Your task to perform on an android device: What's the news in Bolivia? Image 0: 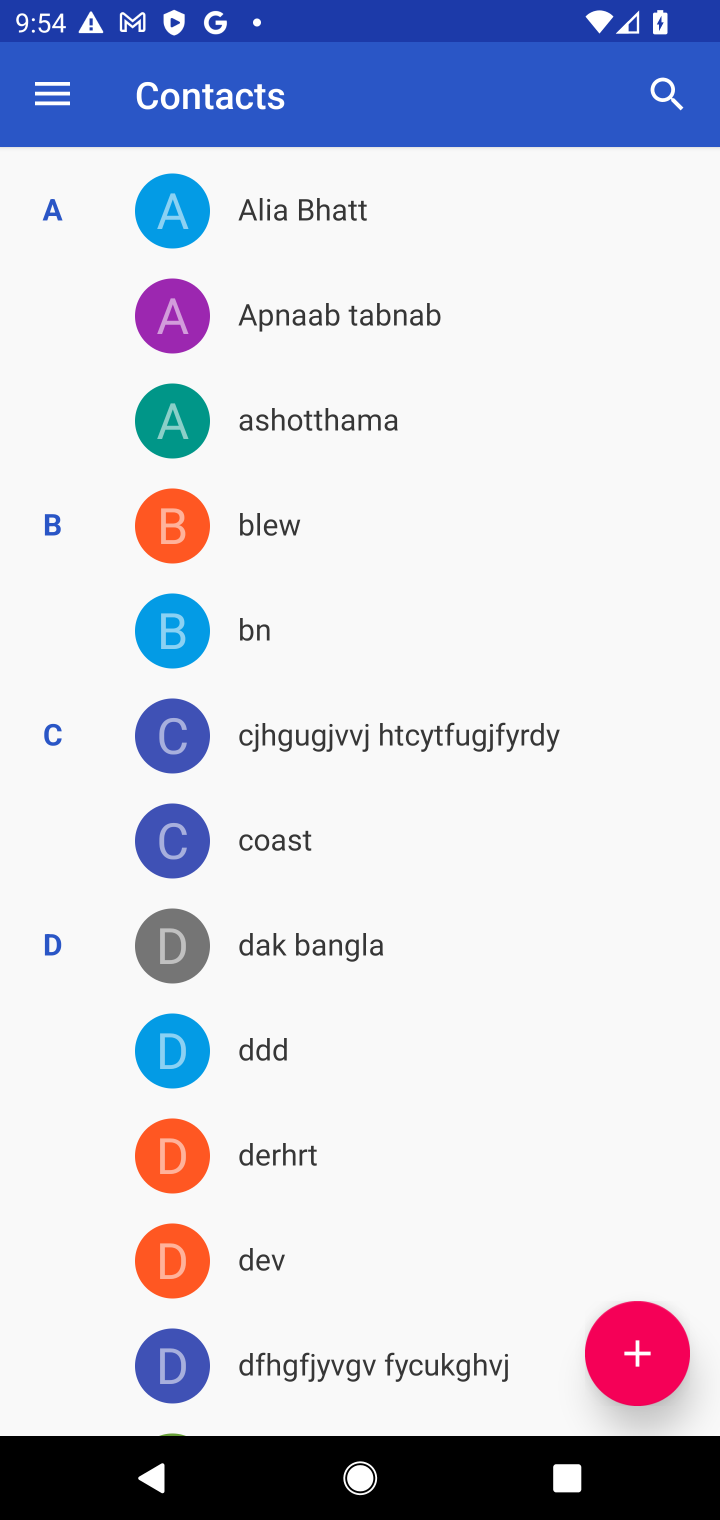
Step 0: press home button
Your task to perform on an android device: What's the news in Bolivia? Image 1: 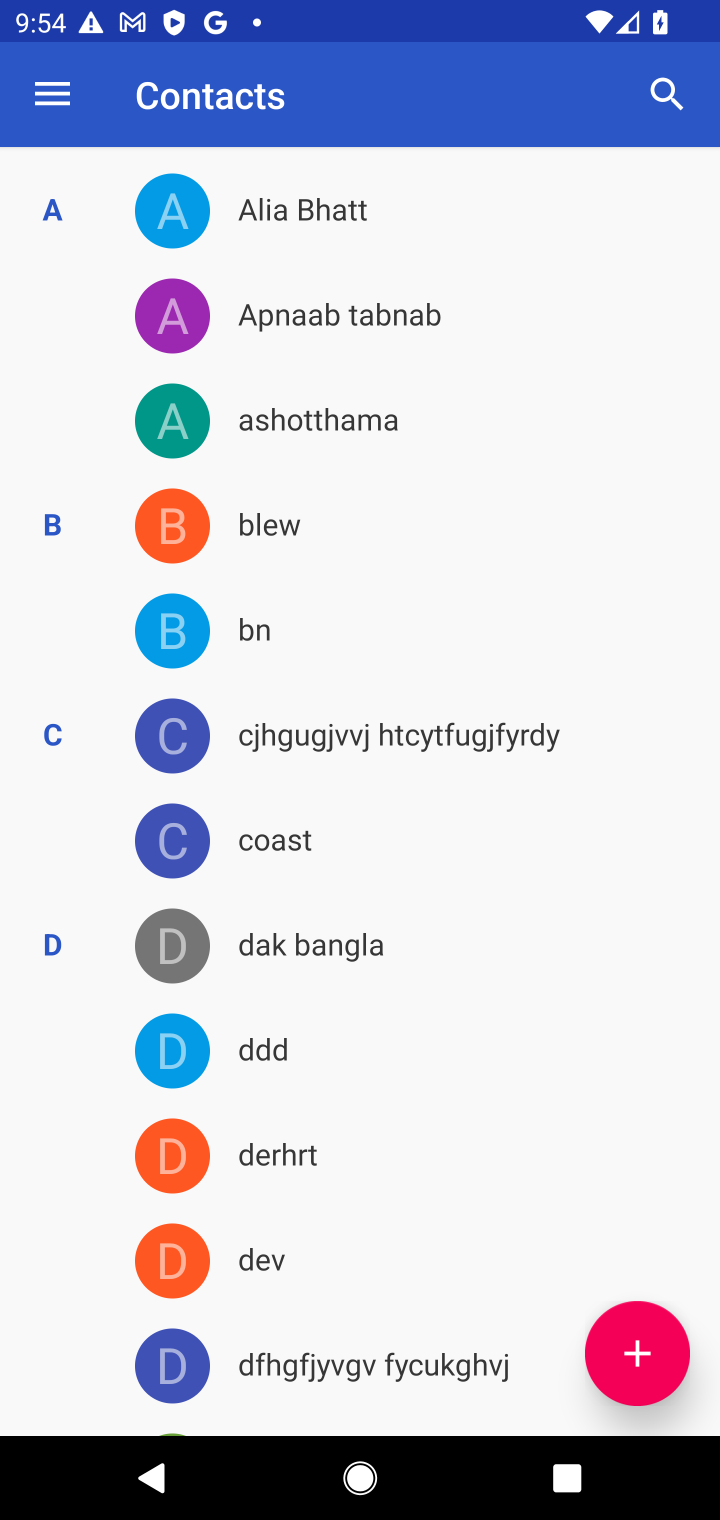
Step 1: press home button
Your task to perform on an android device: What's the news in Bolivia? Image 2: 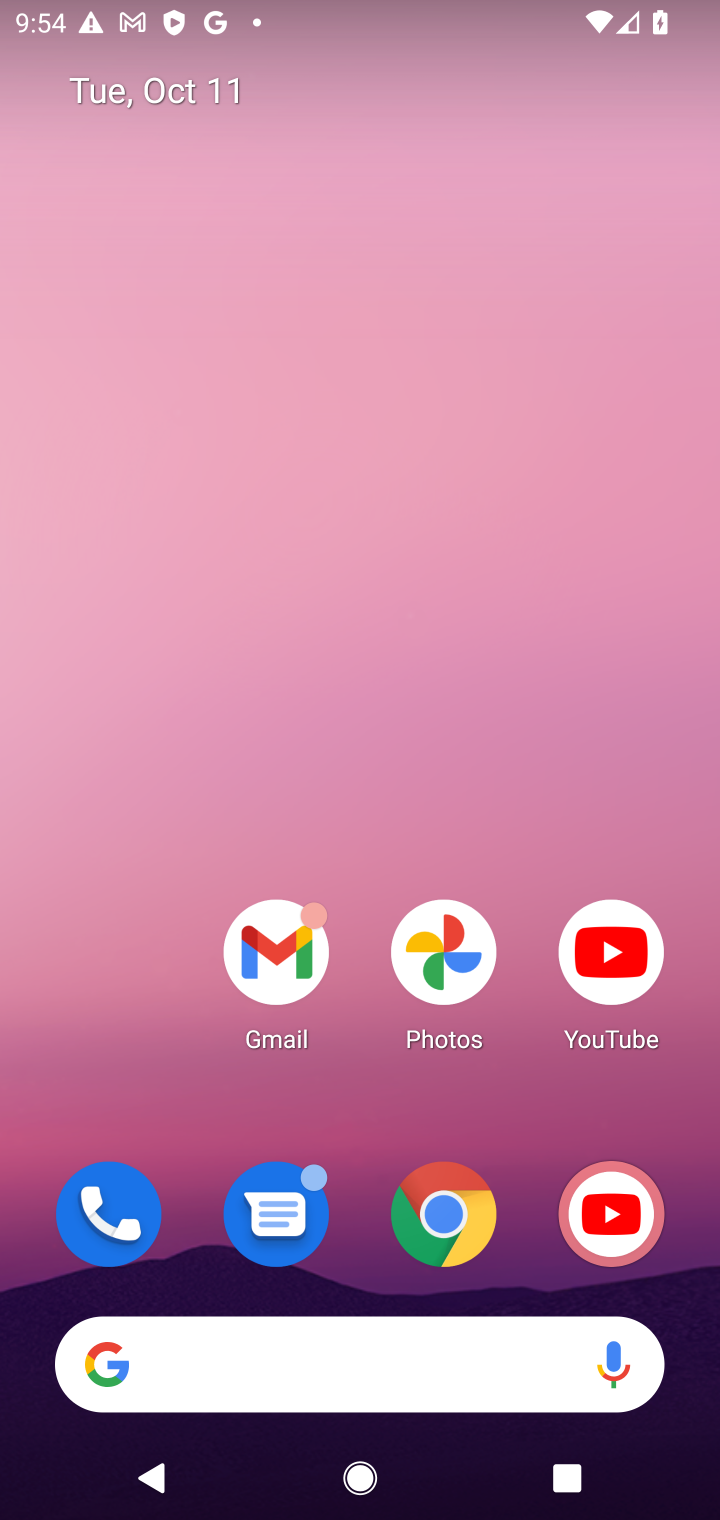
Step 2: drag from (386, 802) to (404, 190)
Your task to perform on an android device: What's the news in Bolivia? Image 3: 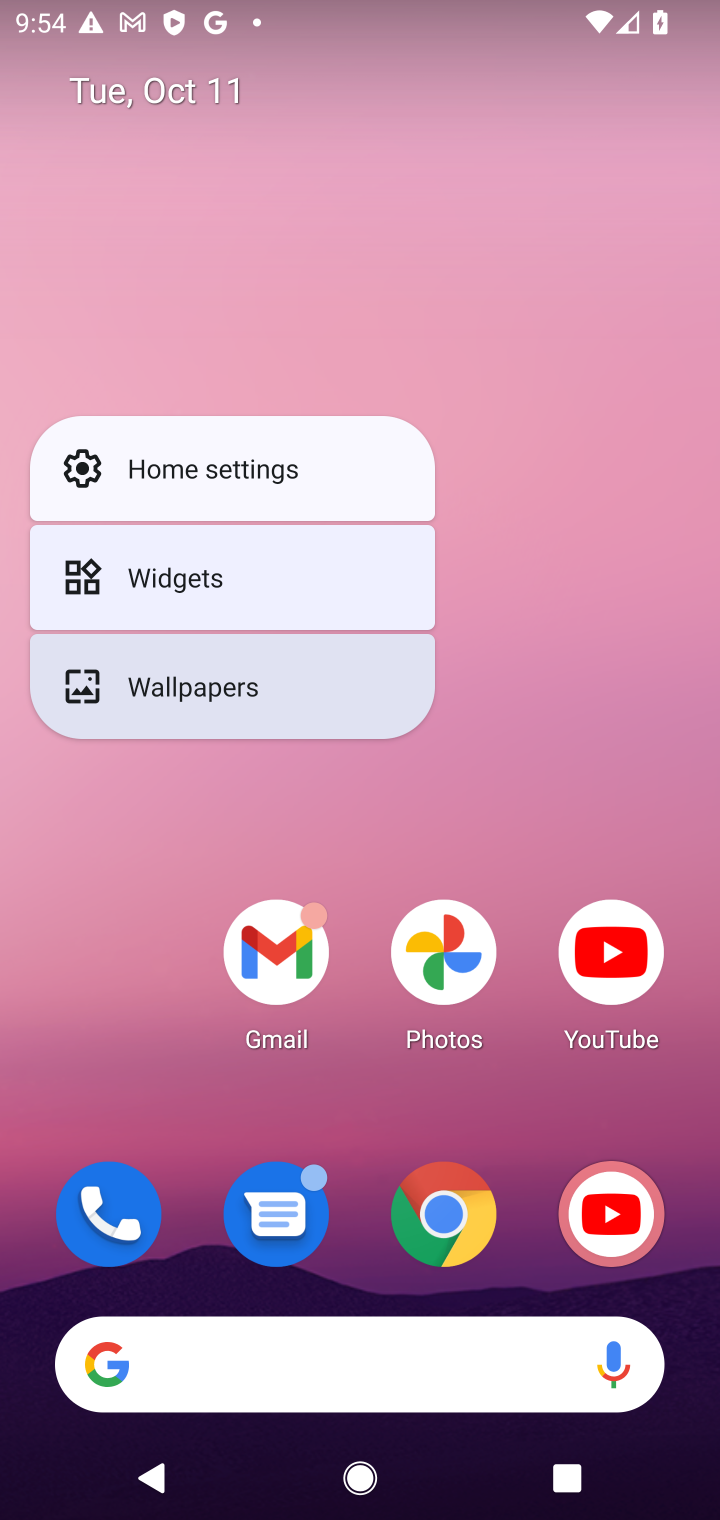
Step 3: click (515, 793)
Your task to perform on an android device: What's the news in Bolivia? Image 4: 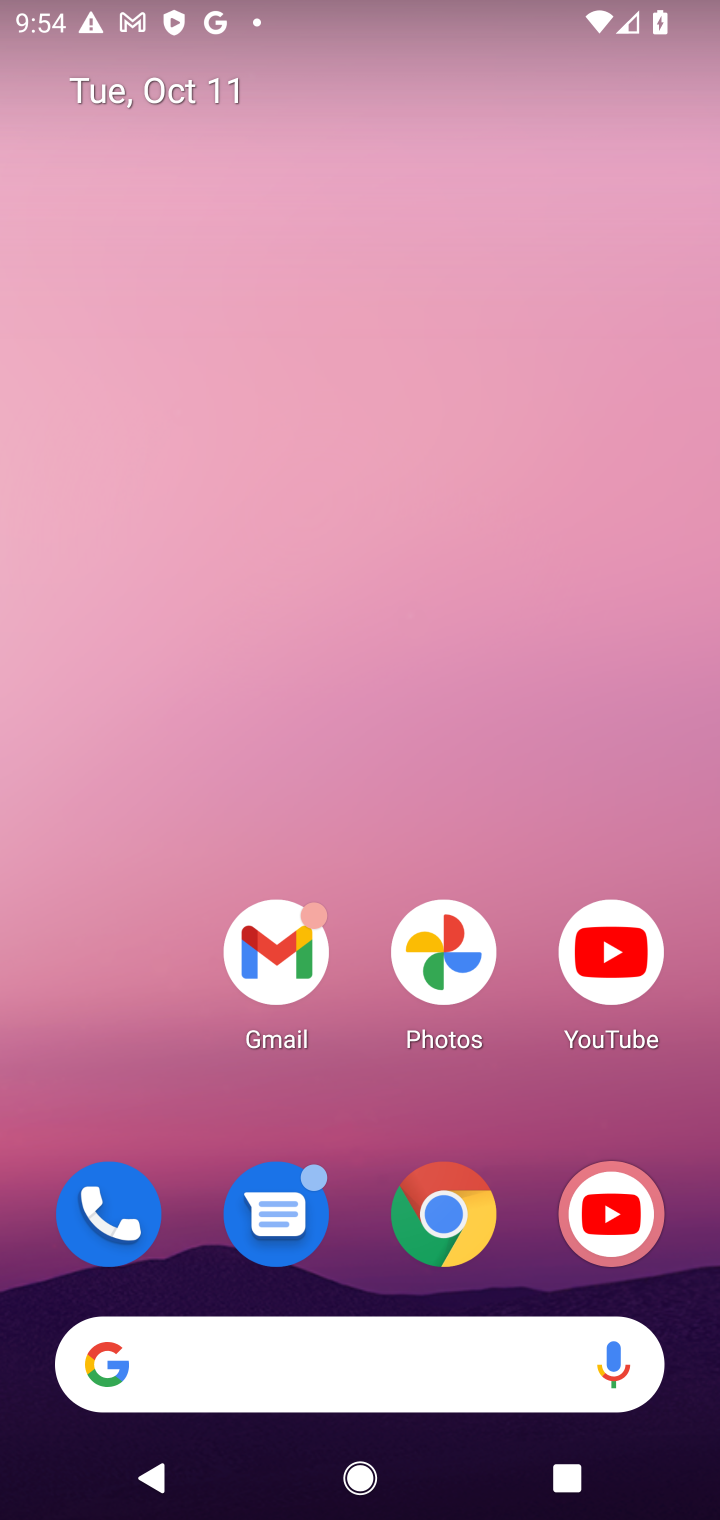
Step 4: drag from (358, 1121) to (420, 190)
Your task to perform on an android device: What's the news in Bolivia? Image 5: 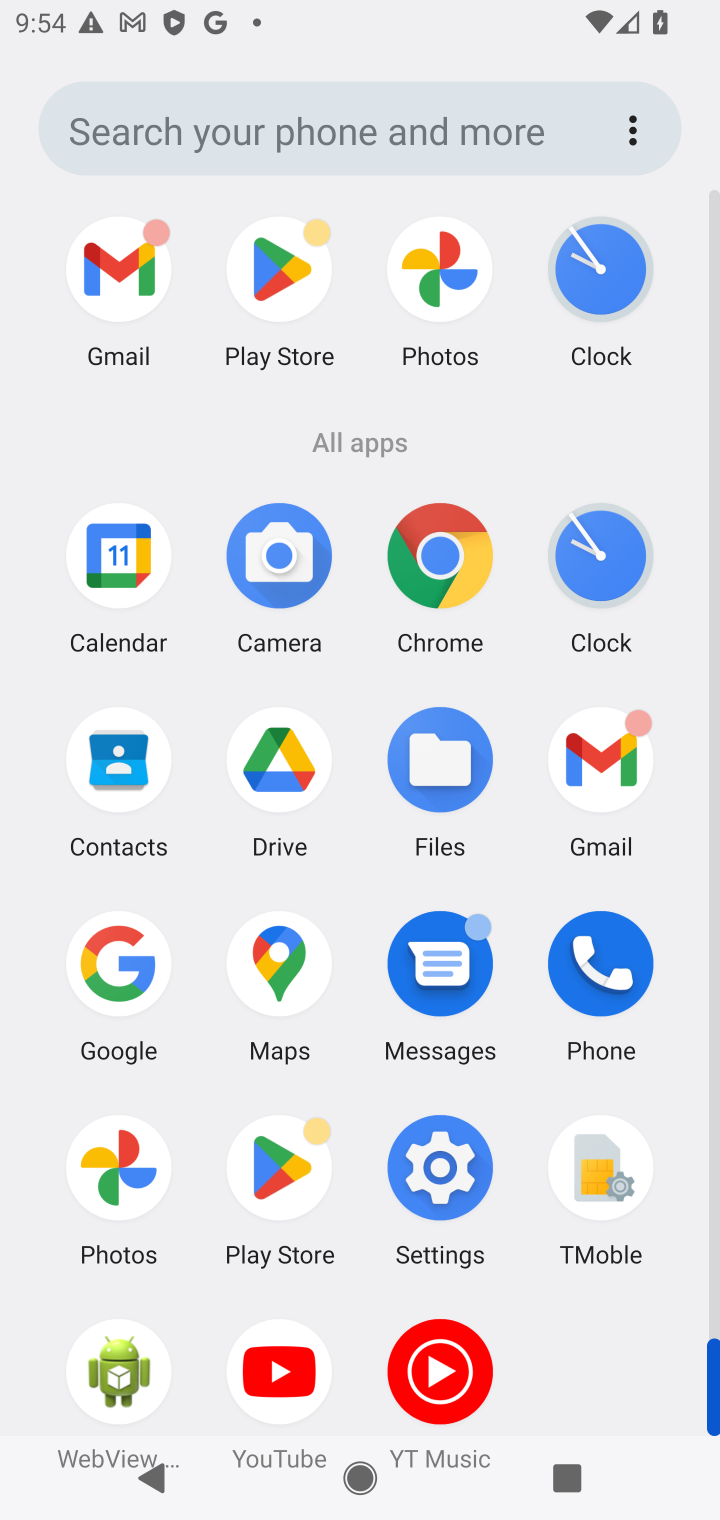
Step 5: click (431, 552)
Your task to perform on an android device: What's the news in Bolivia? Image 6: 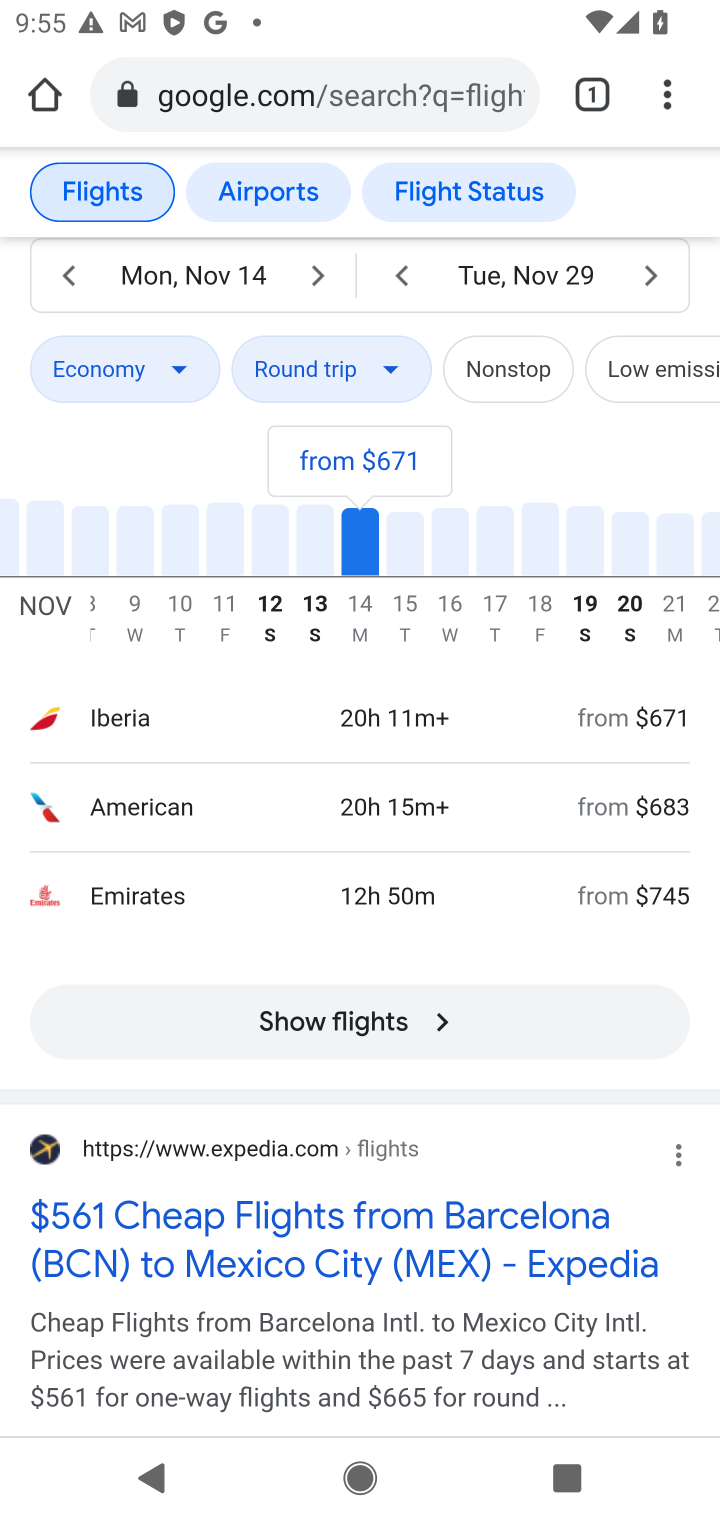
Step 6: click (441, 82)
Your task to perform on an android device: What's the news in Bolivia? Image 7: 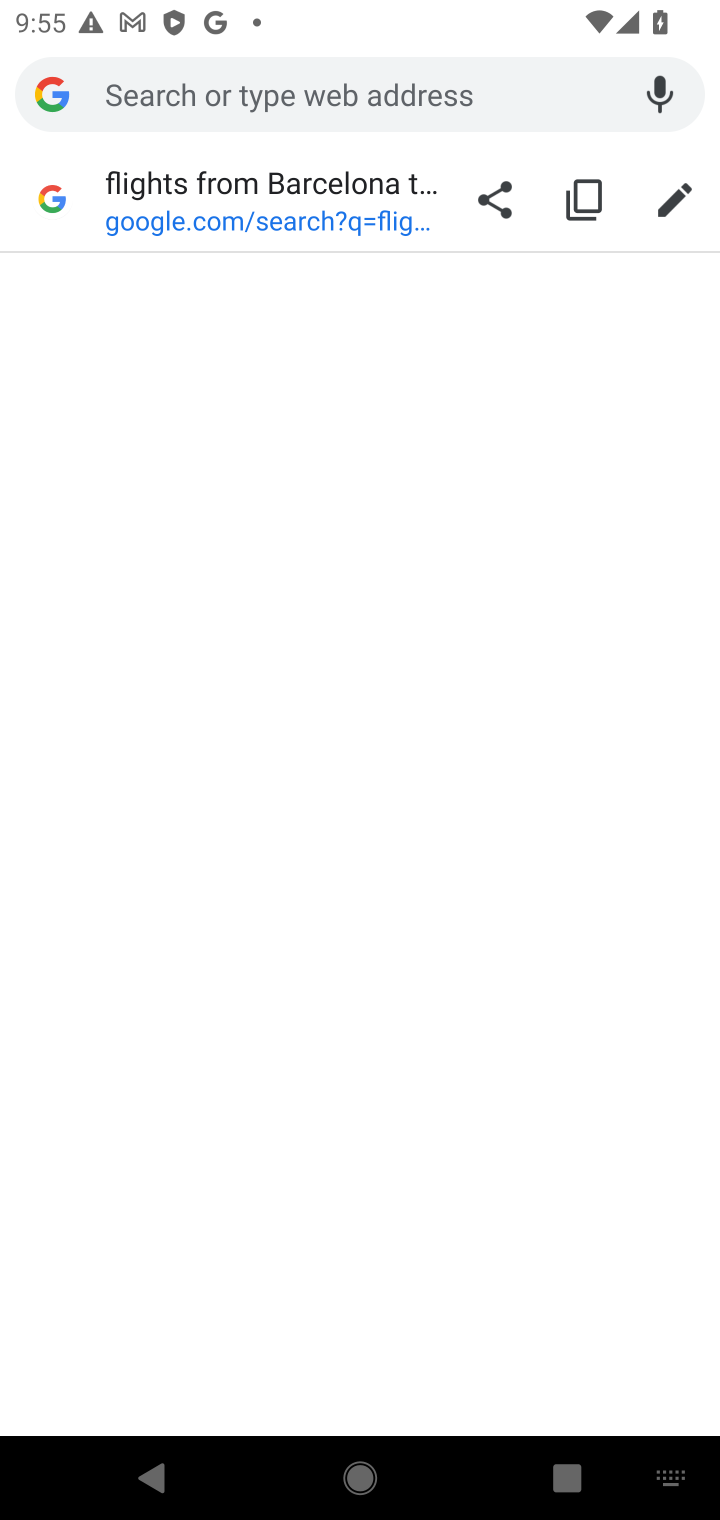
Step 7: type "What's the news in Bolivia?"
Your task to perform on an android device: What's the news in Bolivia? Image 8: 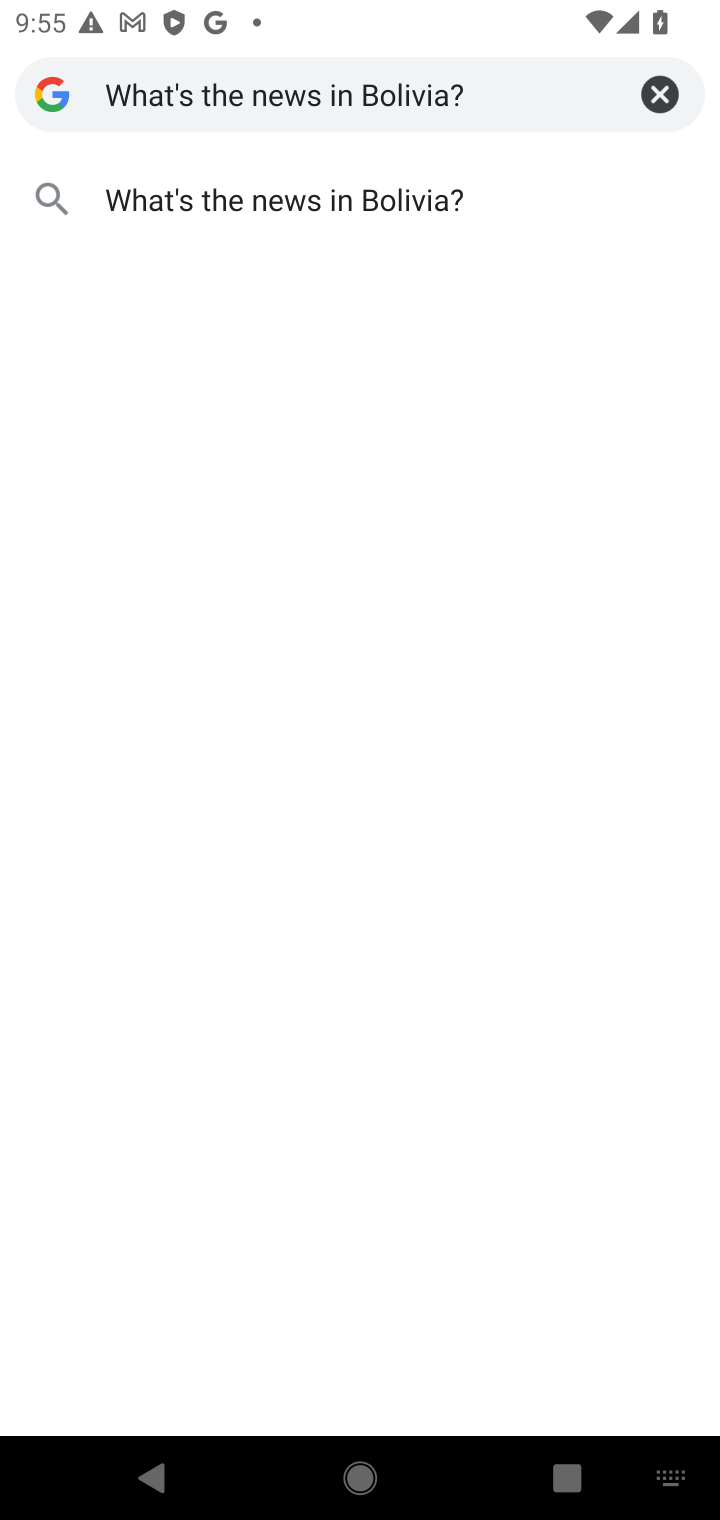
Step 8: press enter
Your task to perform on an android device: What's the news in Bolivia? Image 9: 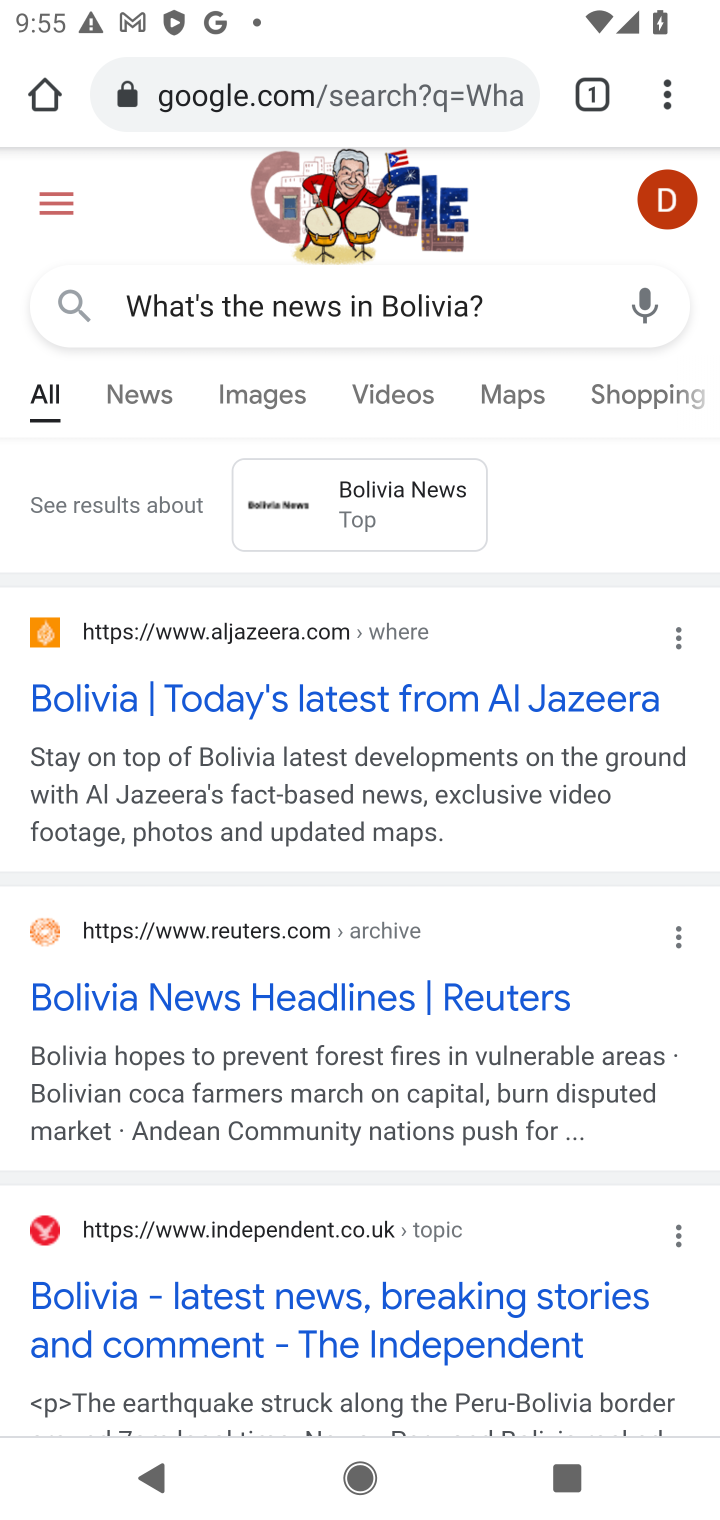
Step 9: click (389, 698)
Your task to perform on an android device: What's the news in Bolivia? Image 10: 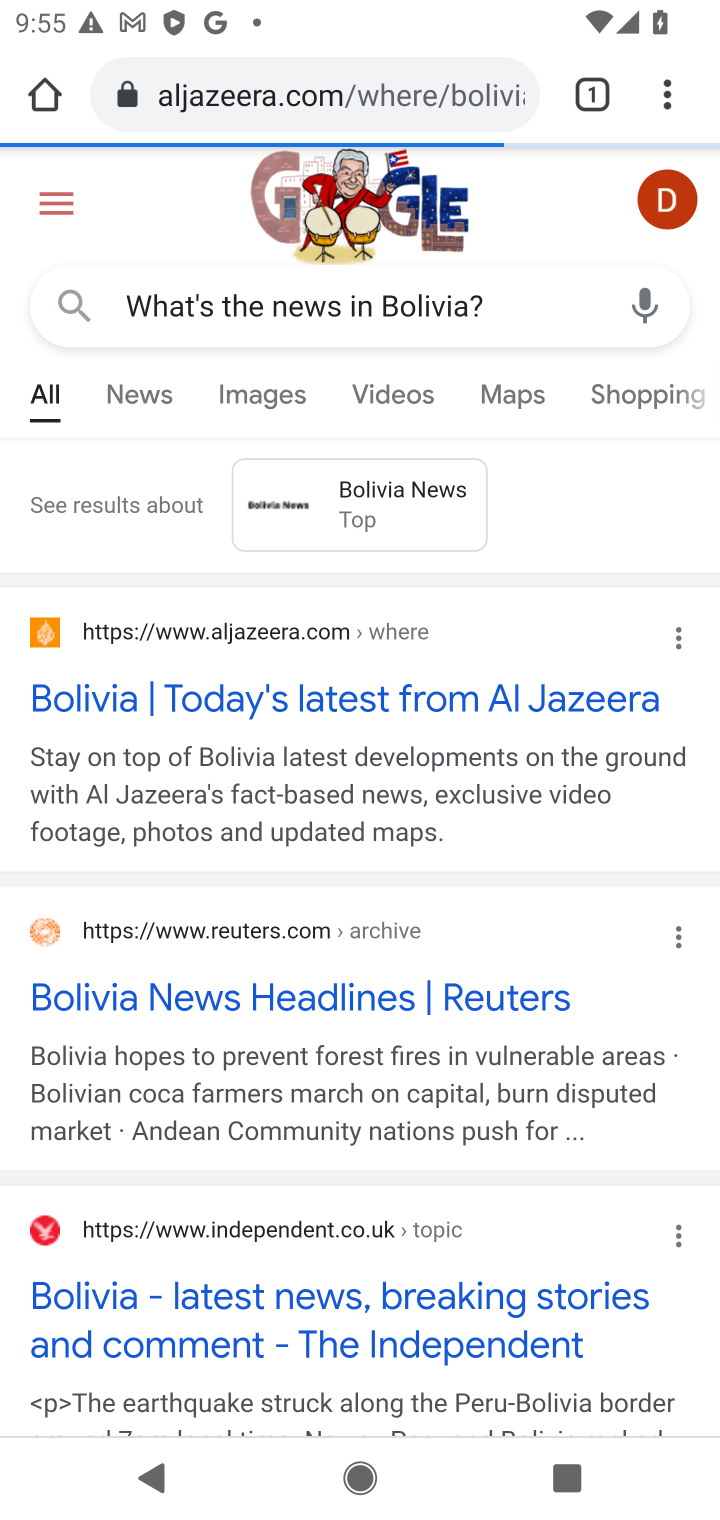
Step 10: click (389, 698)
Your task to perform on an android device: What's the news in Bolivia? Image 11: 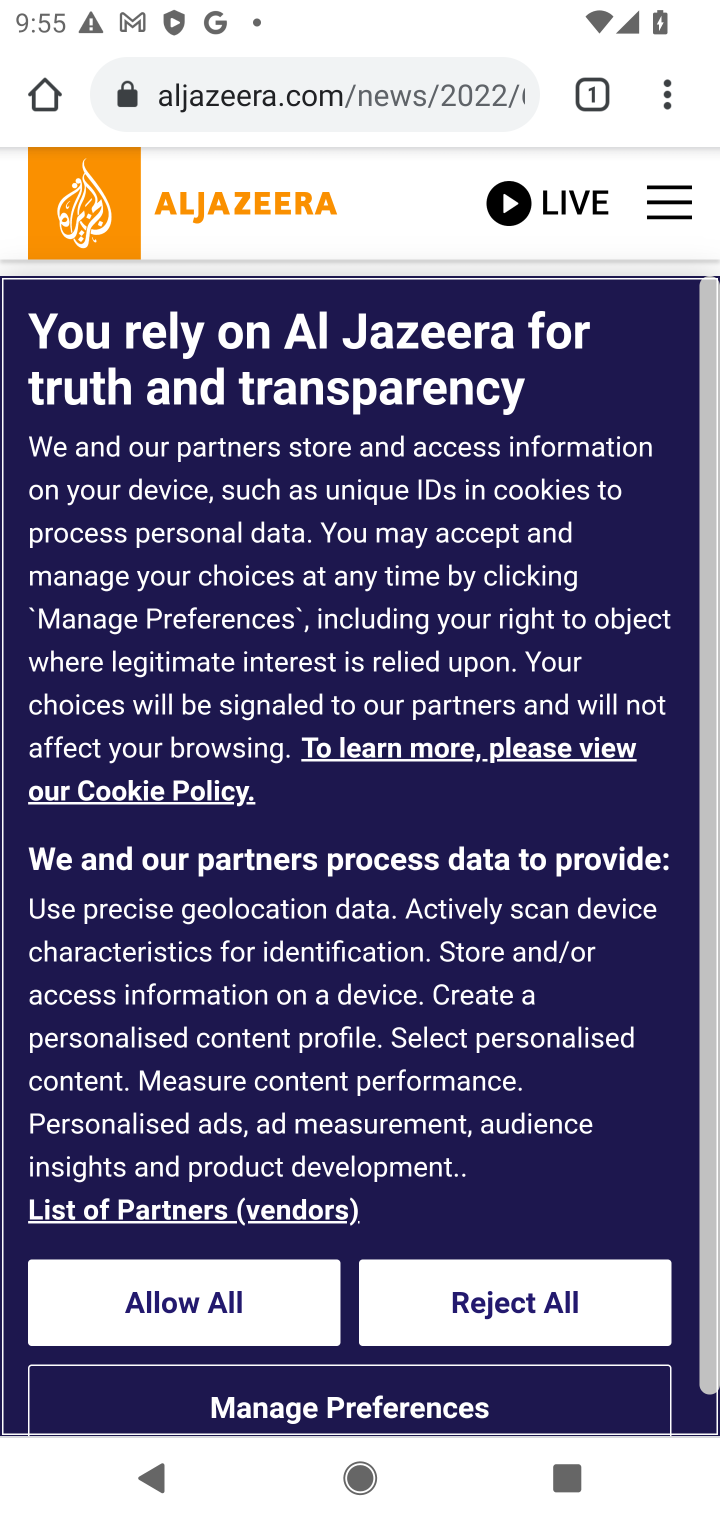
Step 11: click (244, 1274)
Your task to perform on an android device: What's the news in Bolivia? Image 12: 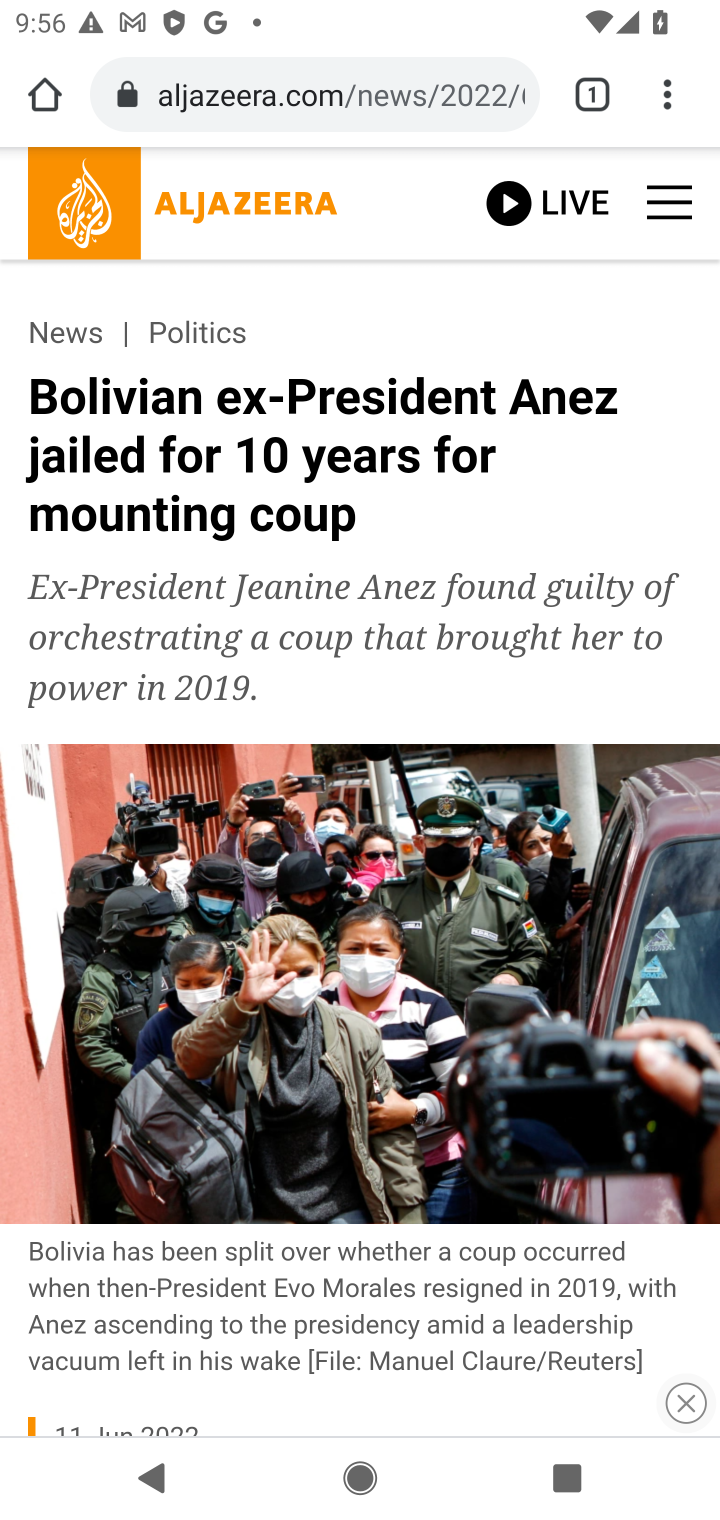
Step 12: task complete